Your task to perform on an android device: set an alarm Image 0: 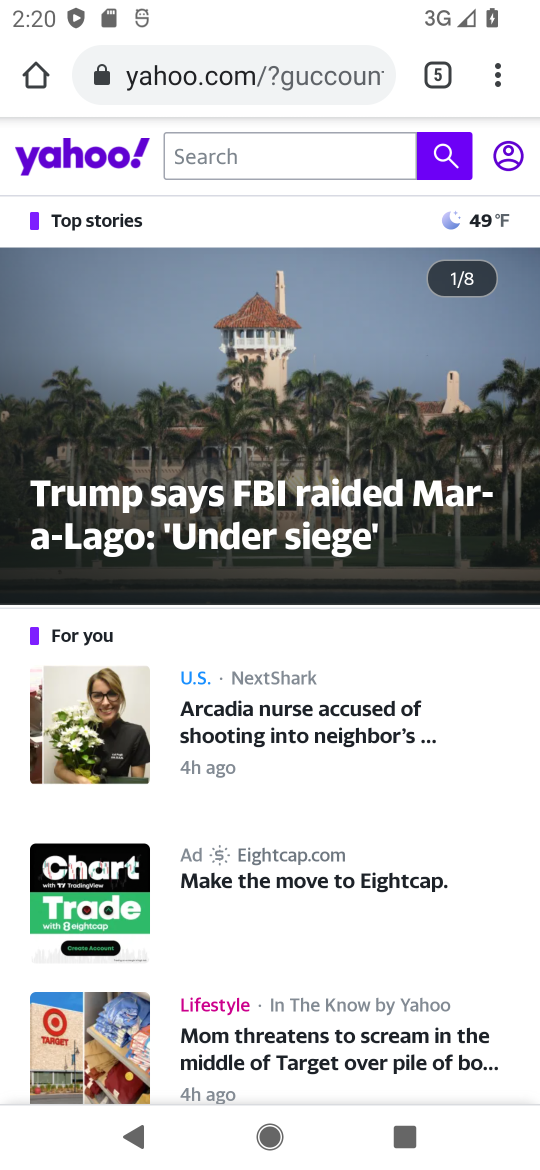
Step 0: press home button
Your task to perform on an android device: set an alarm Image 1: 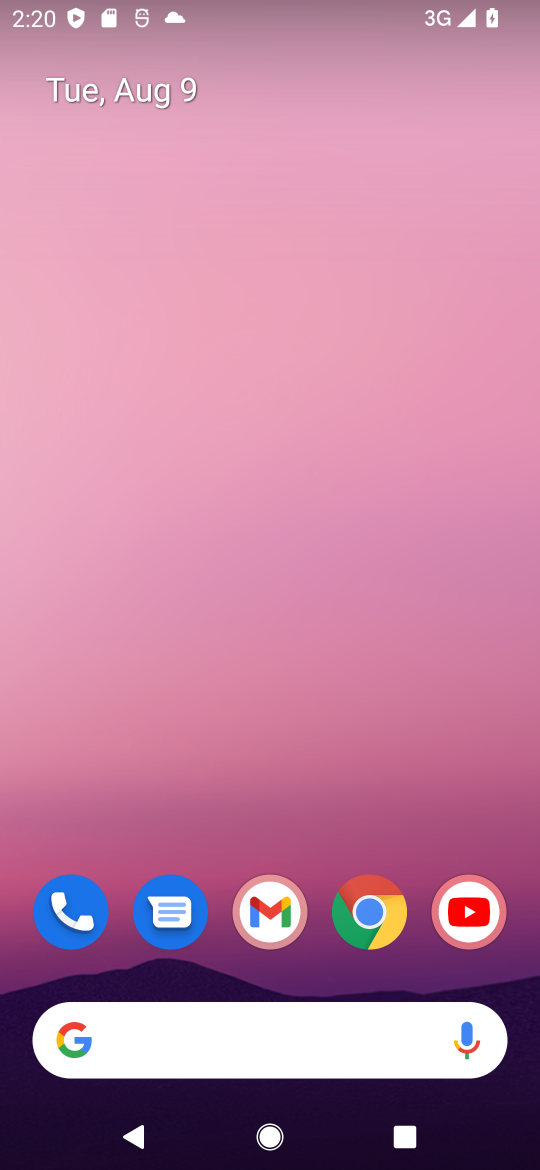
Step 1: drag from (308, 843) to (278, 86)
Your task to perform on an android device: set an alarm Image 2: 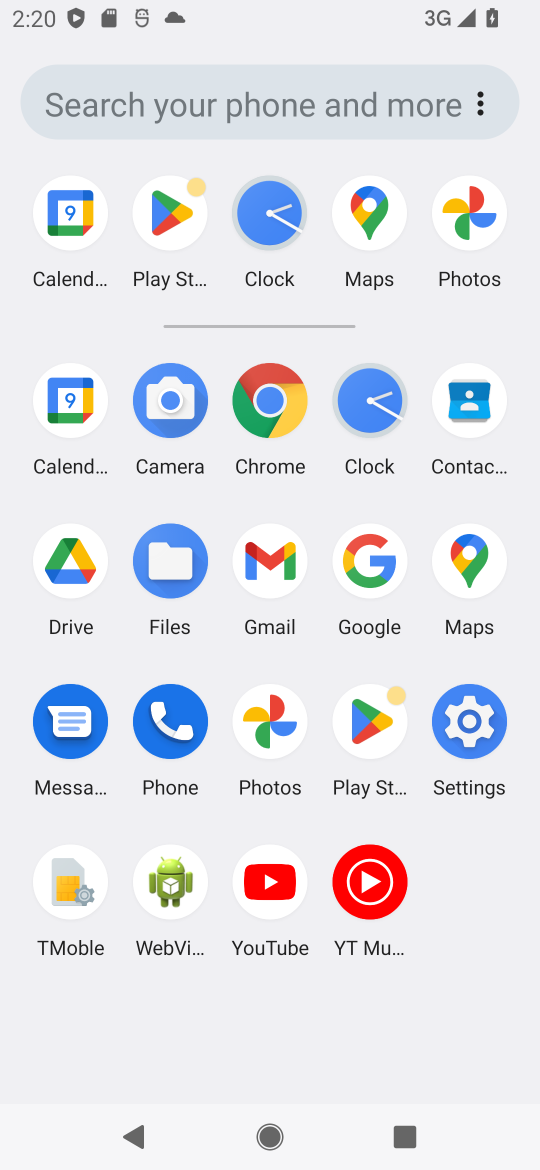
Step 2: click (375, 400)
Your task to perform on an android device: set an alarm Image 3: 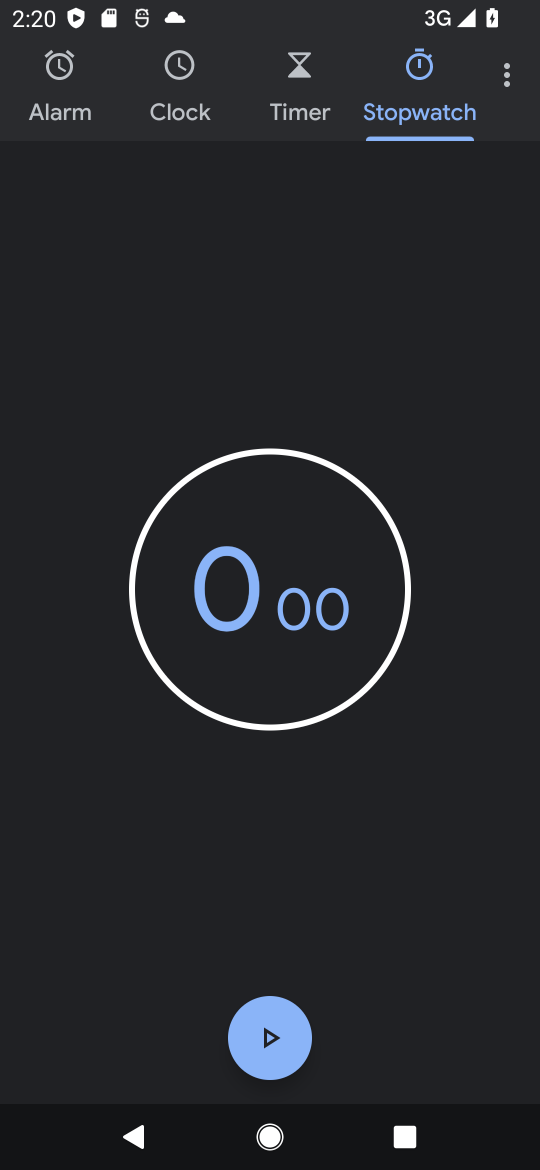
Step 3: click (50, 68)
Your task to perform on an android device: set an alarm Image 4: 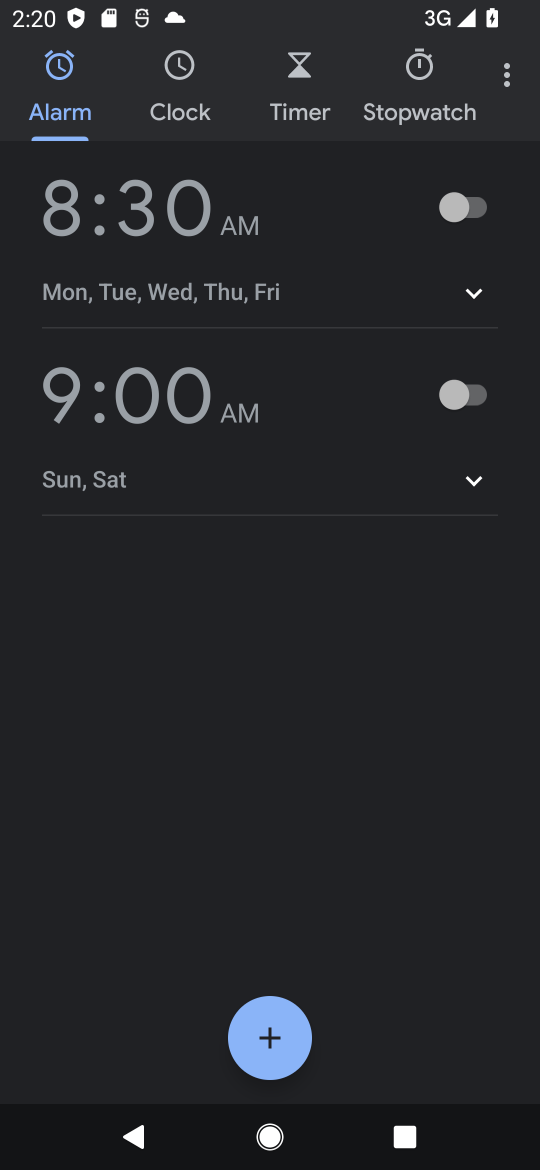
Step 4: click (269, 1027)
Your task to perform on an android device: set an alarm Image 5: 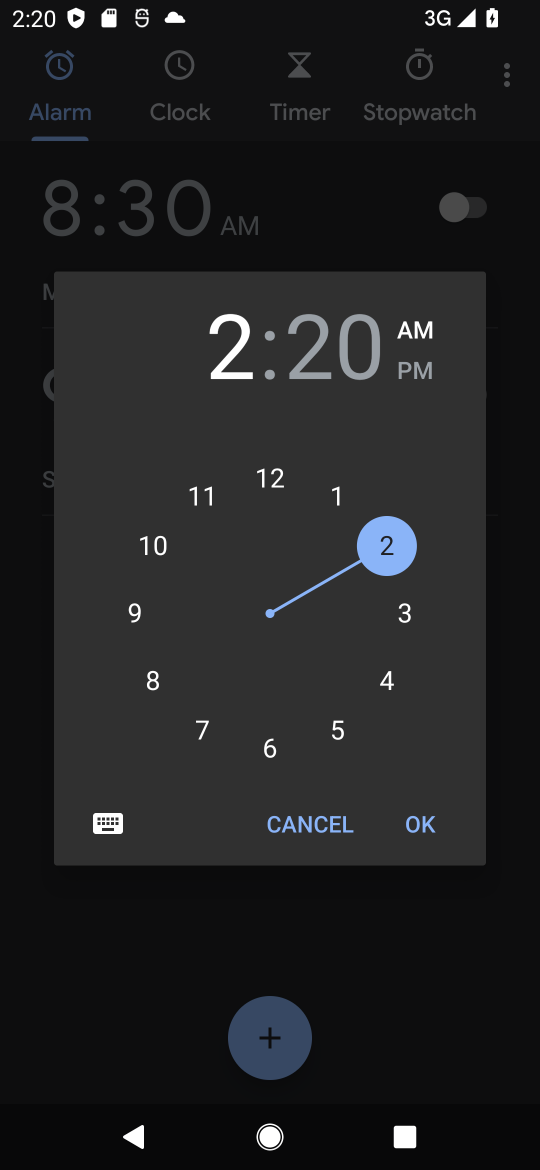
Step 5: click (430, 824)
Your task to perform on an android device: set an alarm Image 6: 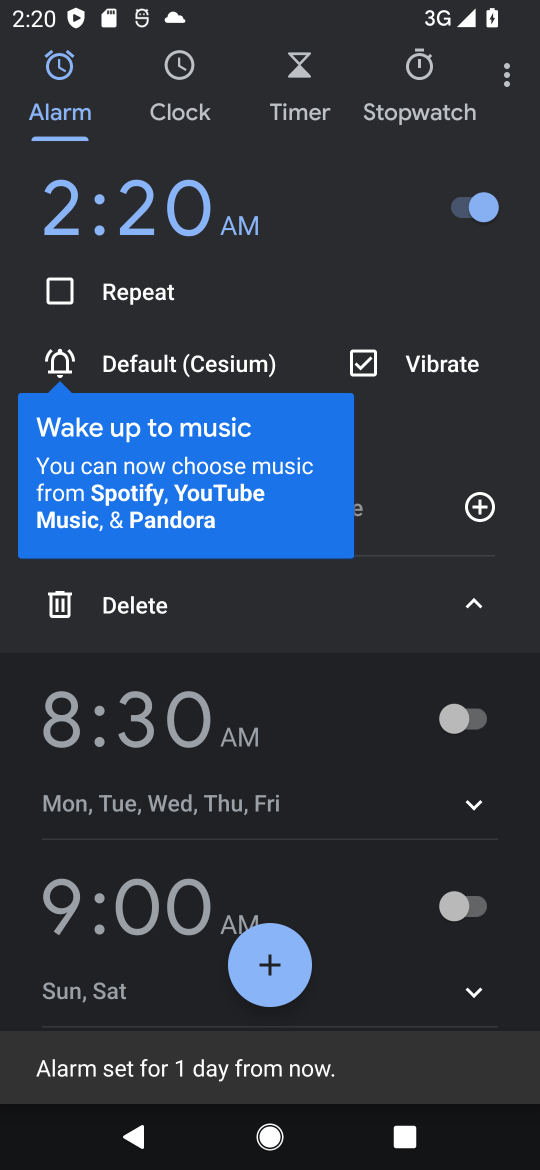
Step 6: task complete